Your task to perform on an android device: find which apps use the phone's location Image 0: 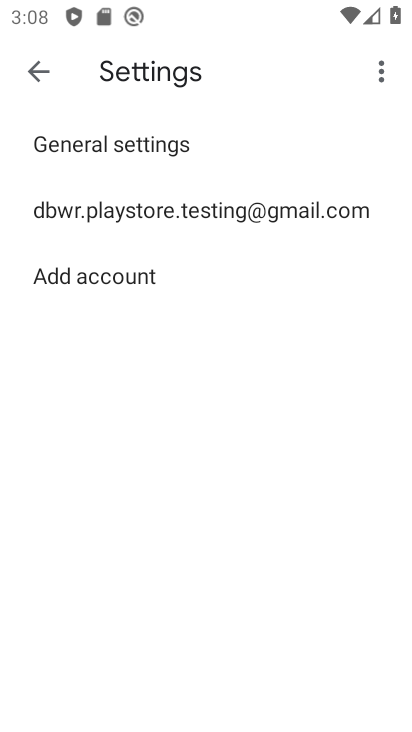
Step 0: press home button
Your task to perform on an android device: find which apps use the phone's location Image 1: 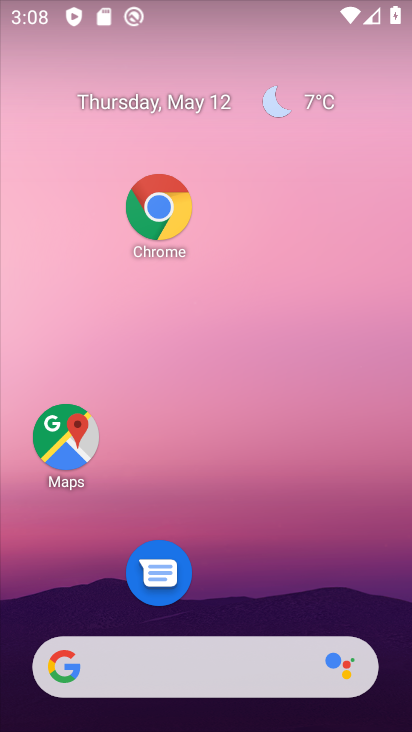
Step 1: drag from (244, 621) to (365, 36)
Your task to perform on an android device: find which apps use the phone's location Image 2: 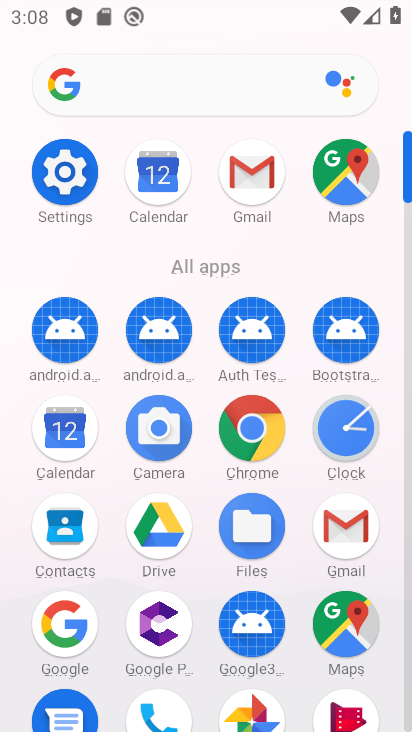
Step 2: drag from (195, 621) to (266, 320)
Your task to perform on an android device: find which apps use the phone's location Image 3: 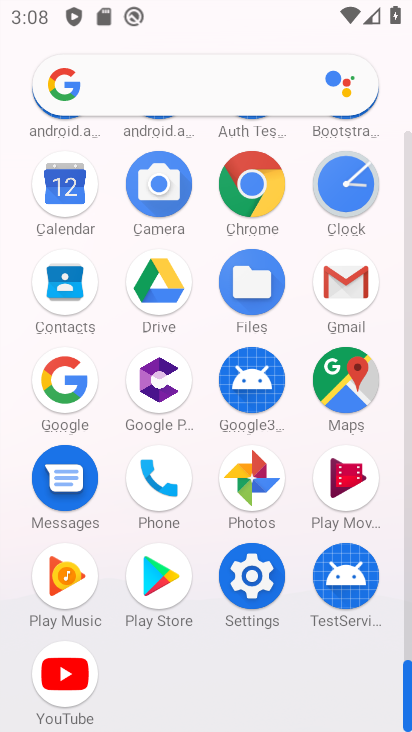
Step 3: click (245, 575)
Your task to perform on an android device: find which apps use the phone's location Image 4: 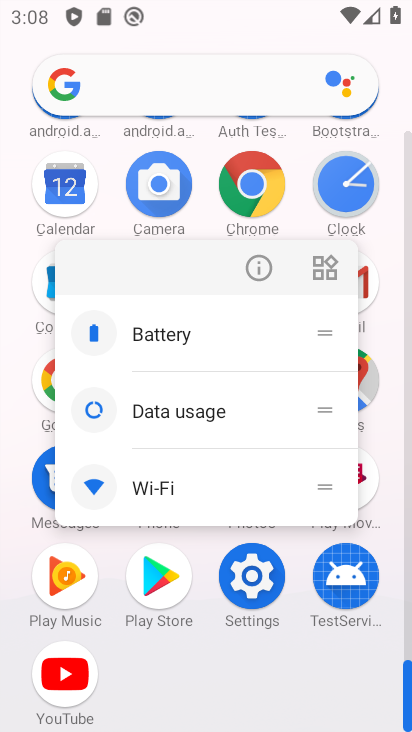
Step 4: click (256, 587)
Your task to perform on an android device: find which apps use the phone's location Image 5: 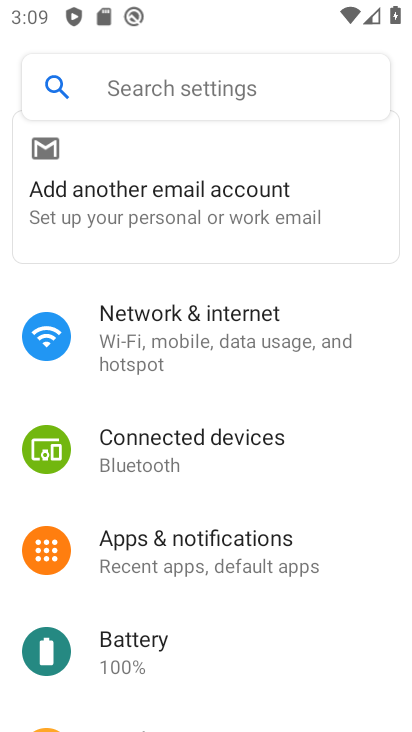
Step 5: drag from (158, 610) to (243, 214)
Your task to perform on an android device: find which apps use the phone's location Image 6: 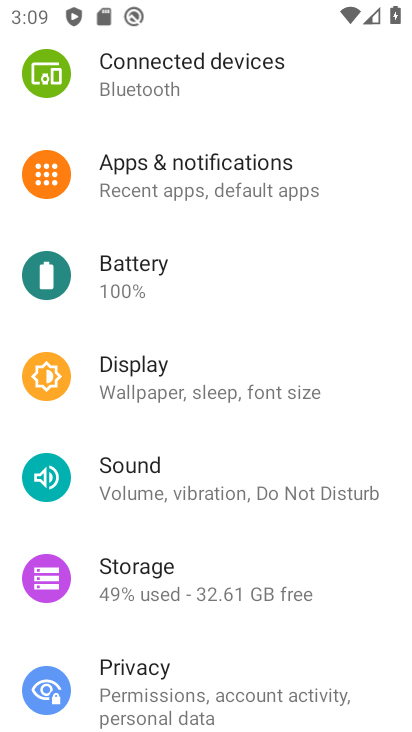
Step 6: drag from (191, 532) to (283, 101)
Your task to perform on an android device: find which apps use the phone's location Image 7: 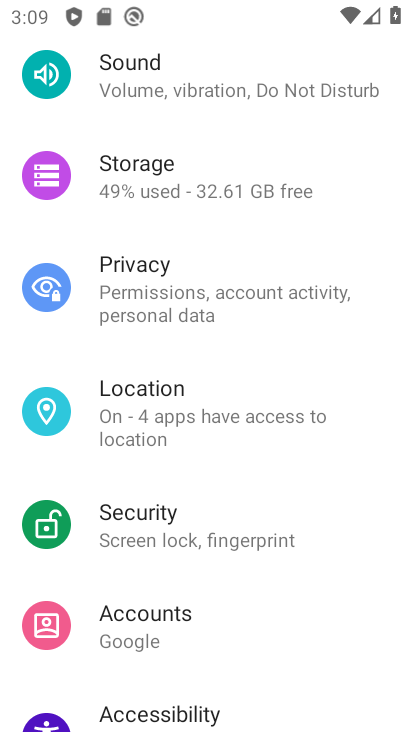
Step 7: click (190, 442)
Your task to perform on an android device: find which apps use the phone's location Image 8: 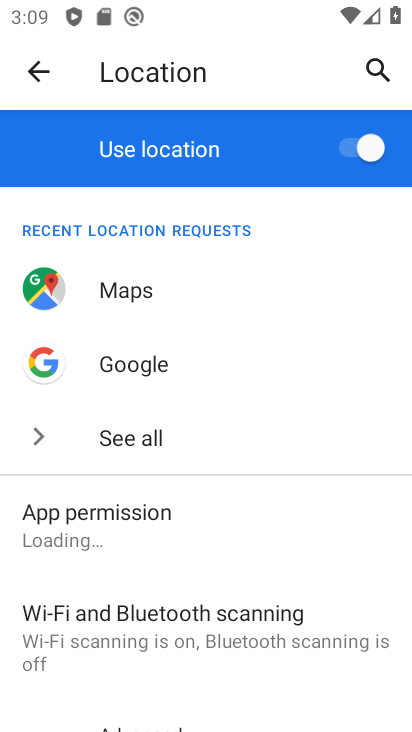
Step 8: drag from (189, 492) to (258, 214)
Your task to perform on an android device: find which apps use the phone's location Image 9: 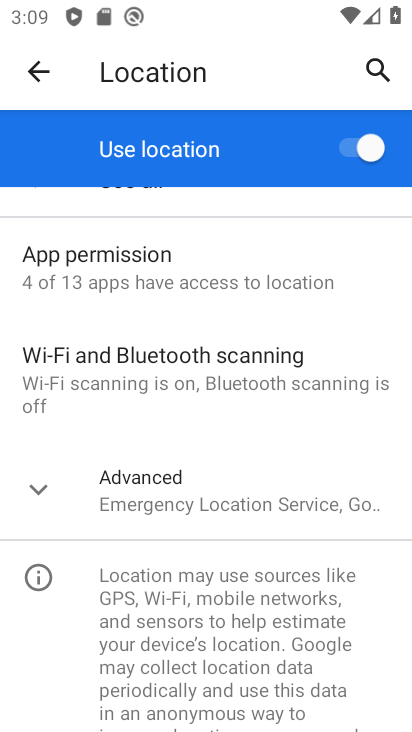
Step 9: click (173, 505)
Your task to perform on an android device: find which apps use the phone's location Image 10: 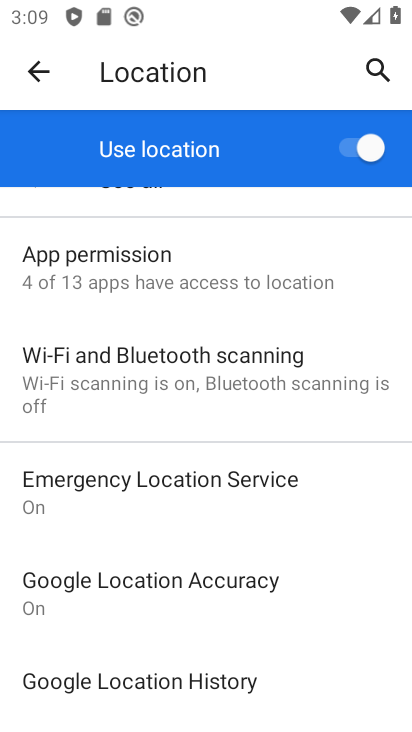
Step 10: drag from (173, 621) to (220, 452)
Your task to perform on an android device: find which apps use the phone's location Image 11: 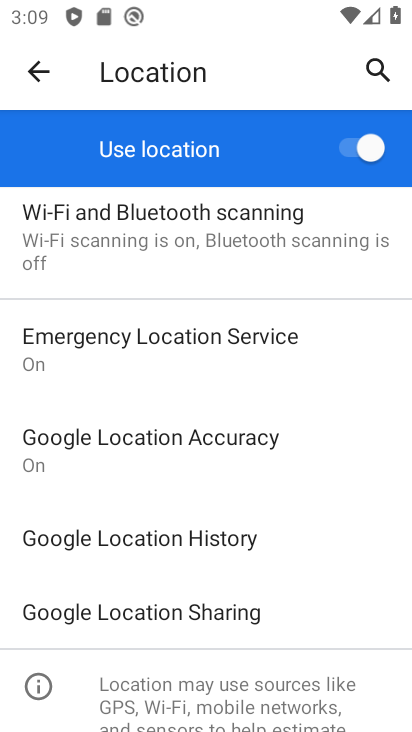
Step 11: drag from (164, 325) to (103, 727)
Your task to perform on an android device: find which apps use the phone's location Image 12: 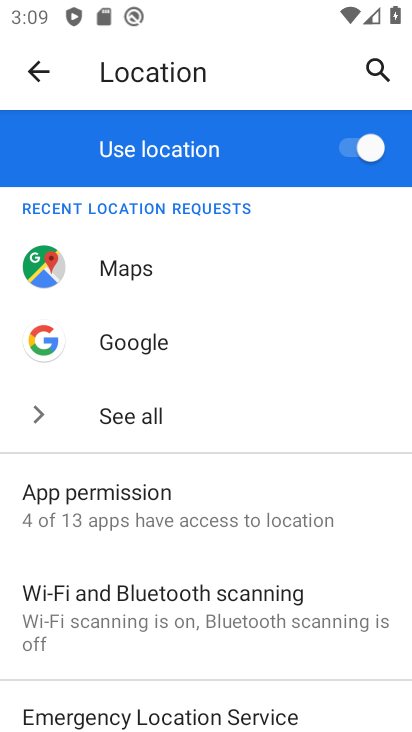
Step 12: click (127, 509)
Your task to perform on an android device: find which apps use the phone's location Image 13: 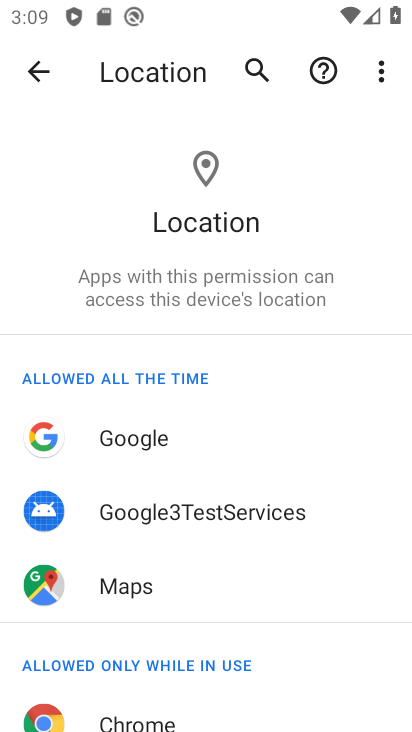
Step 13: task complete